Your task to perform on an android device: change your default location settings in chrome Image 0: 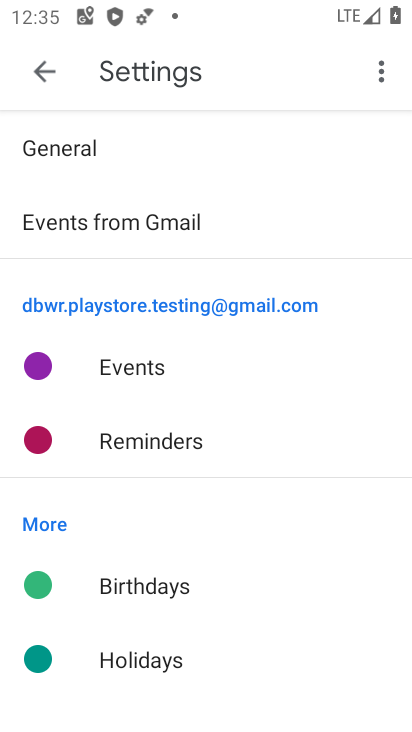
Step 0: press home button
Your task to perform on an android device: change your default location settings in chrome Image 1: 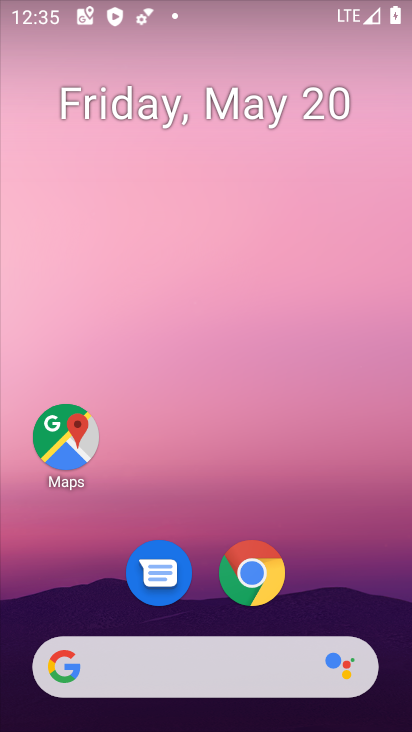
Step 1: click (250, 565)
Your task to perform on an android device: change your default location settings in chrome Image 2: 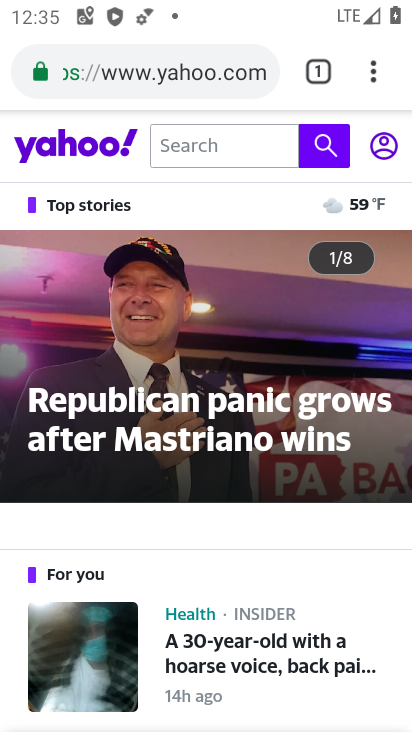
Step 2: click (381, 76)
Your task to perform on an android device: change your default location settings in chrome Image 3: 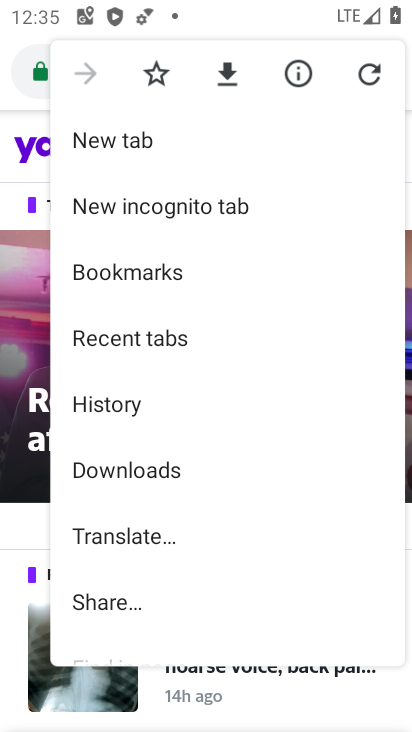
Step 3: drag from (137, 618) to (207, 269)
Your task to perform on an android device: change your default location settings in chrome Image 4: 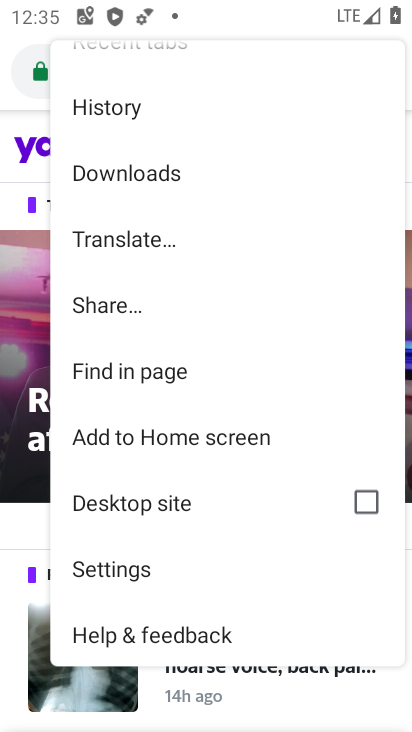
Step 4: click (140, 580)
Your task to perform on an android device: change your default location settings in chrome Image 5: 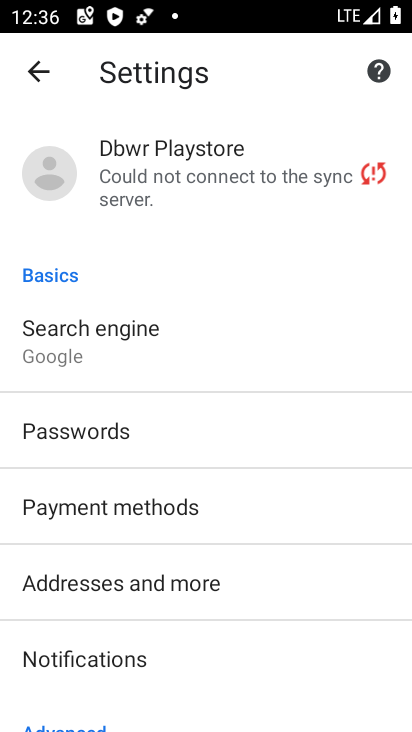
Step 5: drag from (141, 577) to (183, 292)
Your task to perform on an android device: change your default location settings in chrome Image 6: 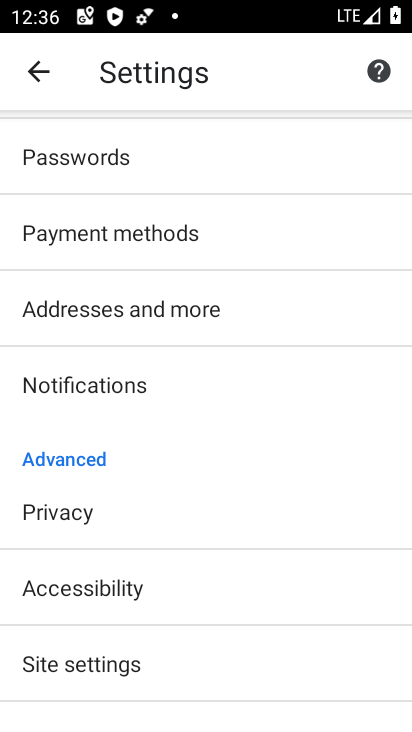
Step 6: drag from (109, 656) to (131, 568)
Your task to perform on an android device: change your default location settings in chrome Image 7: 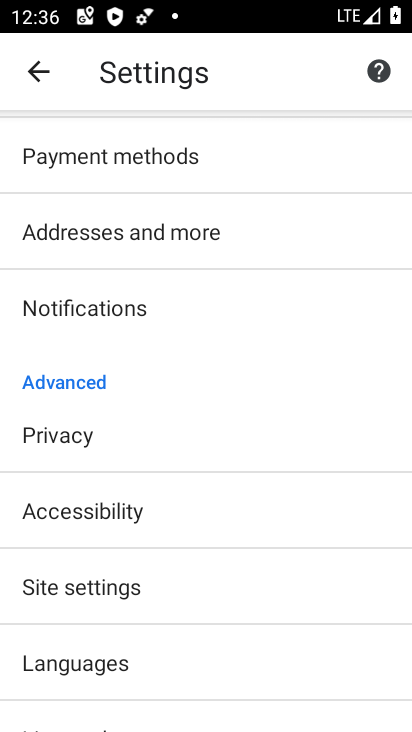
Step 7: click (123, 591)
Your task to perform on an android device: change your default location settings in chrome Image 8: 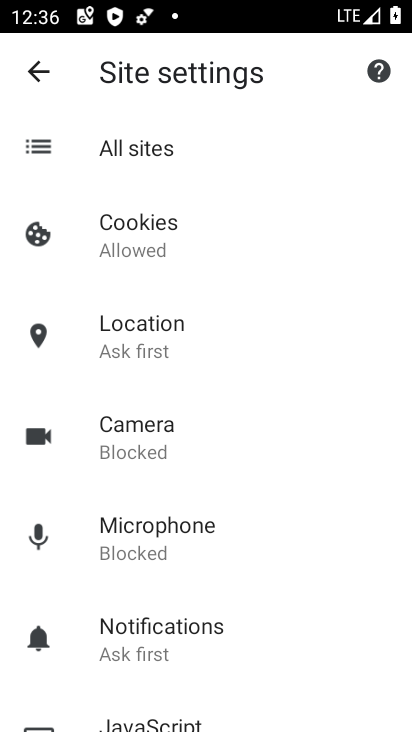
Step 8: drag from (160, 609) to (208, 441)
Your task to perform on an android device: change your default location settings in chrome Image 9: 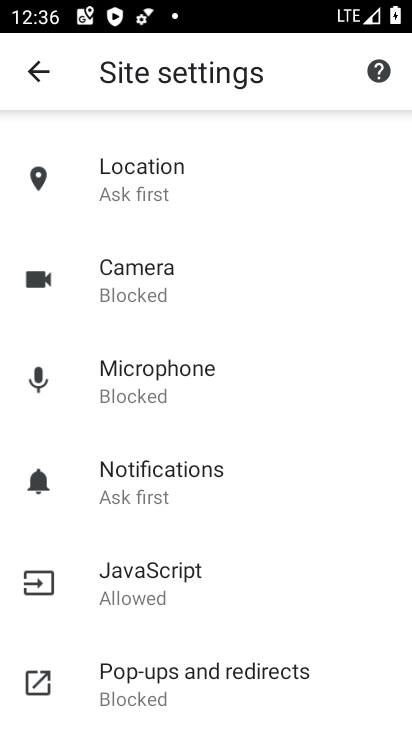
Step 9: drag from (172, 551) to (195, 432)
Your task to perform on an android device: change your default location settings in chrome Image 10: 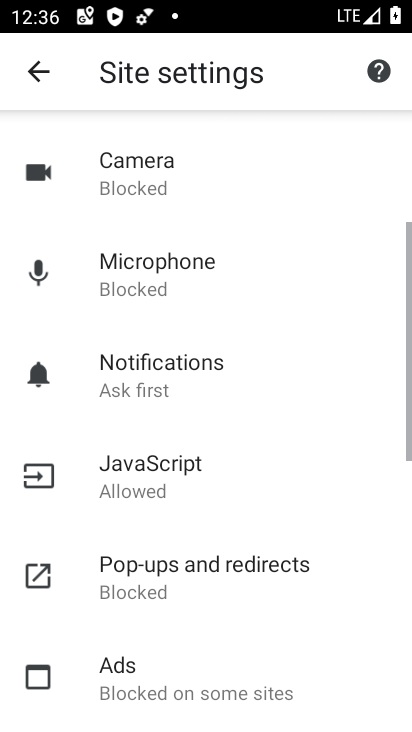
Step 10: drag from (195, 432) to (174, 552)
Your task to perform on an android device: change your default location settings in chrome Image 11: 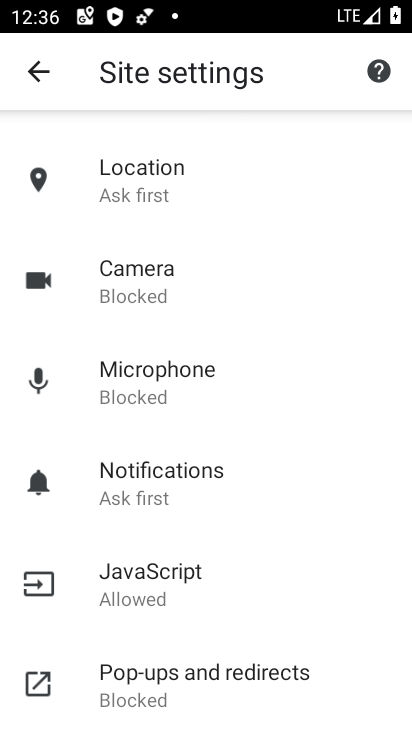
Step 11: click (145, 187)
Your task to perform on an android device: change your default location settings in chrome Image 12: 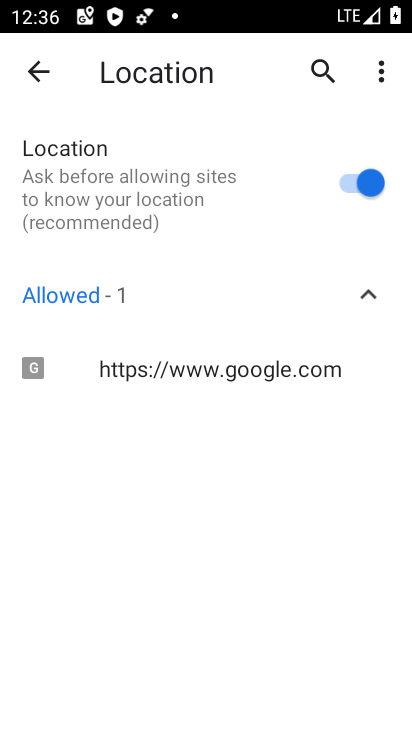
Step 12: click (348, 198)
Your task to perform on an android device: change your default location settings in chrome Image 13: 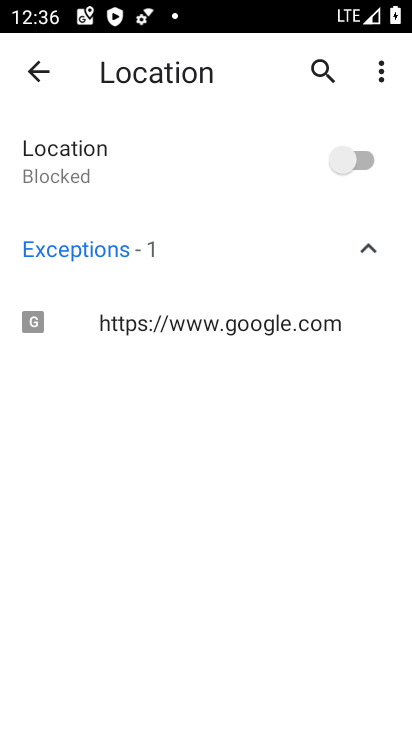
Step 13: task complete